Your task to perform on an android device: Open location settings Image 0: 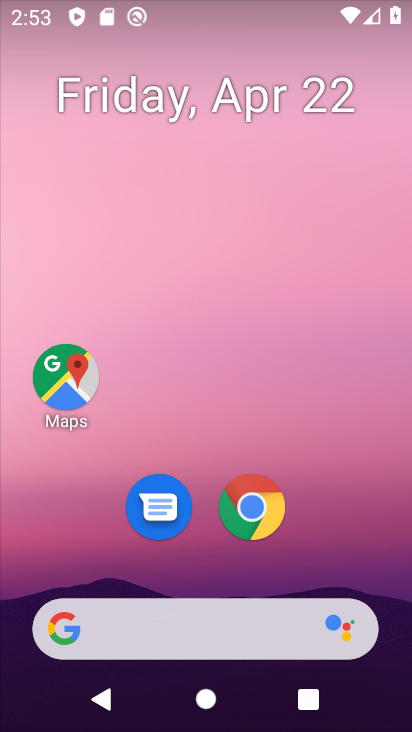
Step 0: drag from (336, 490) to (372, 103)
Your task to perform on an android device: Open location settings Image 1: 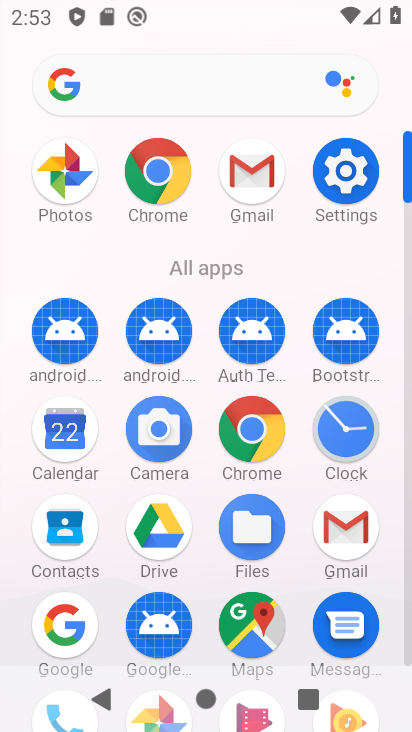
Step 1: click (362, 184)
Your task to perform on an android device: Open location settings Image 2: 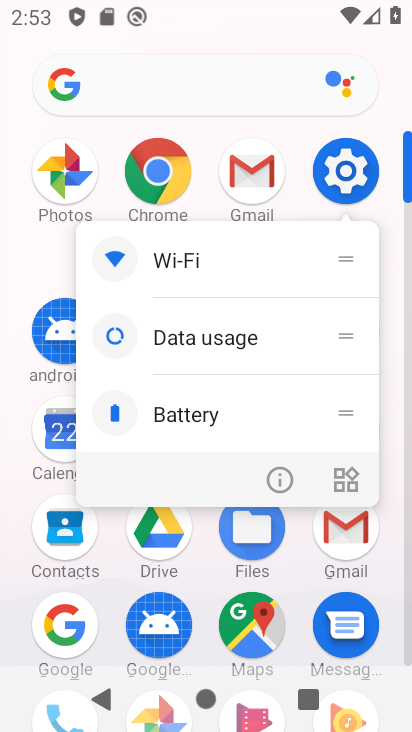
Step 2: click (353, 176)
Your task to perform on an android device: Open location settings Image 3: 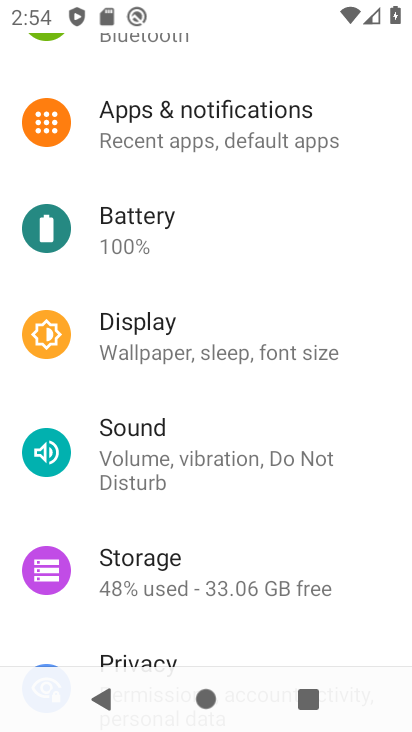
Step 3: drag from (318, 514) to (345, 217)
Your task to perform on an android device: Open location settings Image 4: 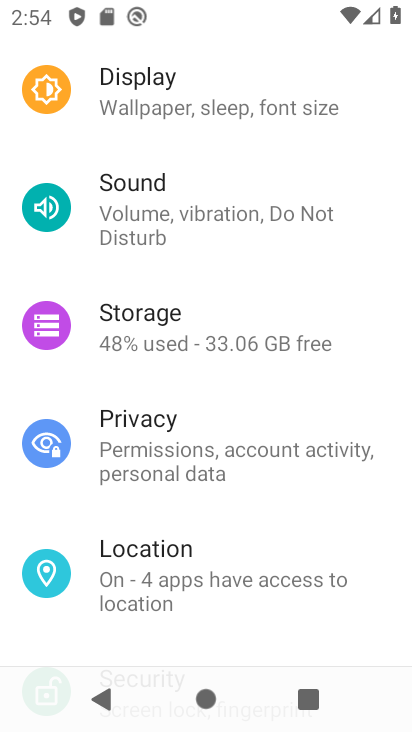
Step 4: click (237, 580)
Your task to perform on an android device: Open location settings Image 5: 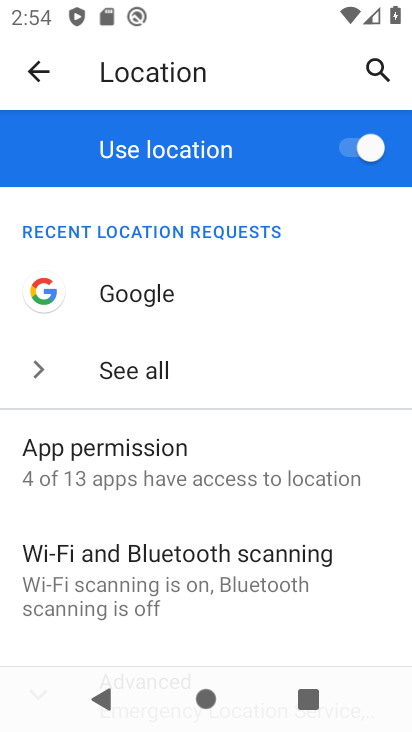
Step 5: drag from (291, 605) to (295, 312)
Your task to perform on an android device: Open location settings Image 6: 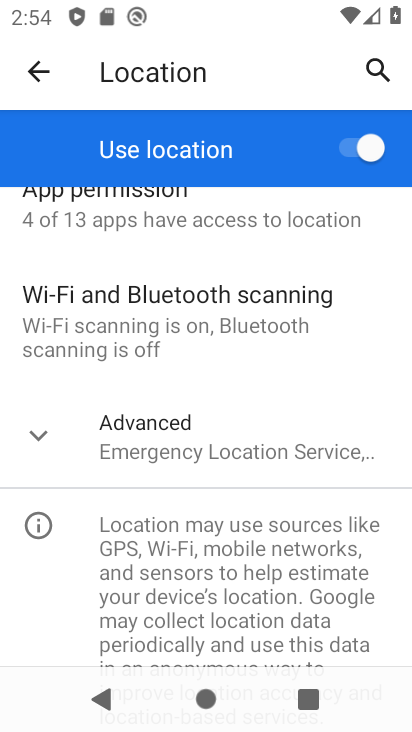
Step 6: click (42, 431)
Your task to perform on an android device: Open location settings Image 7: 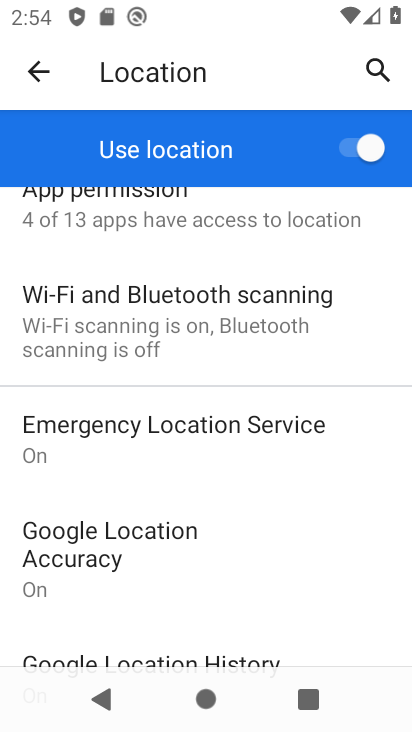
Step 7: task complete